Your task to perform on an android device: change the clock display to show seconds Image 0: 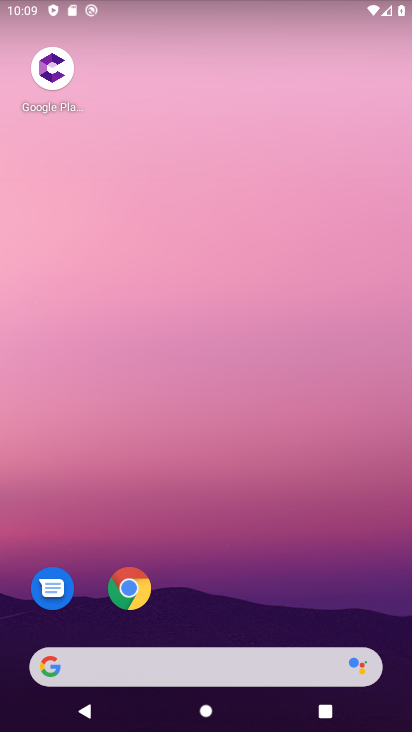
Step 0: drag from (236, 621) to (333, 54)
Your task to perform on an android device: change the clock display to show seconds Image 1: 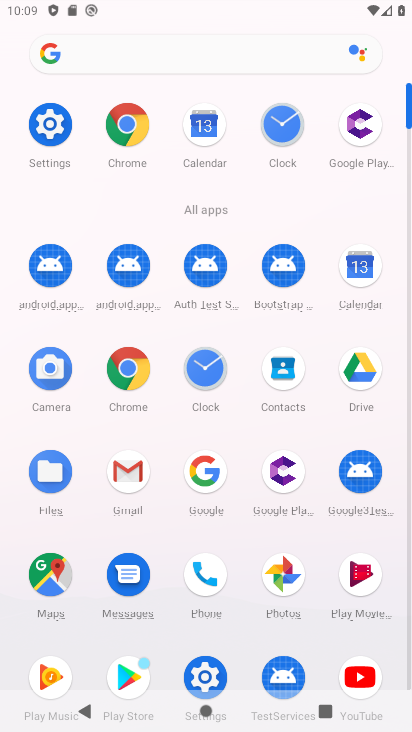
Step 1: click (187, 377)
Your task to perform on an android device: change the clock display to show seconds Image 2: 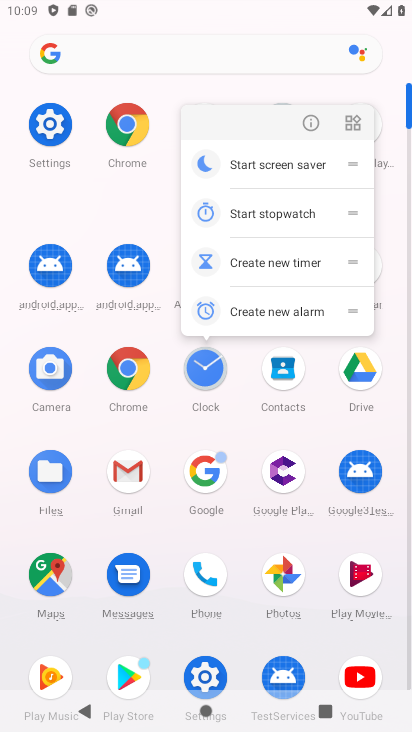
Step 2: click (215, 370)
Your task to perform on an android device: change the clock display to show seconds Image 3: 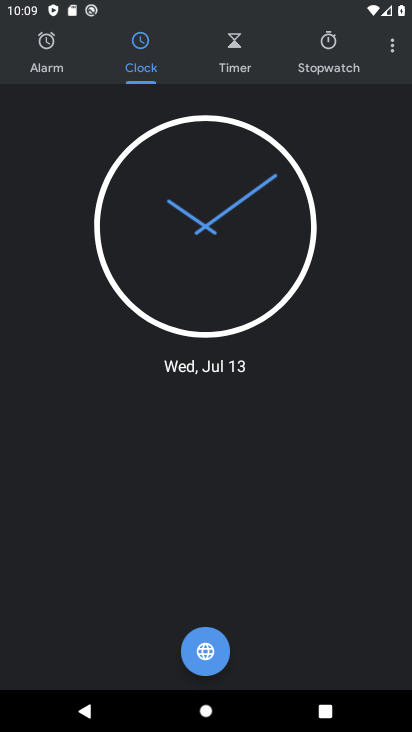
Step 3: click (393, 48)
Your task to perform on an android device: change the clock display to show seconds Image 4: 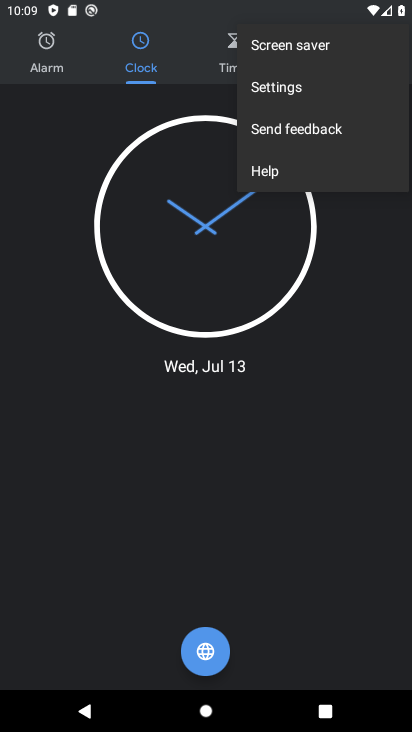
Step 4: click (370, 83)
Your task to perform on an android device: change the clock display to show seconds Image 5: 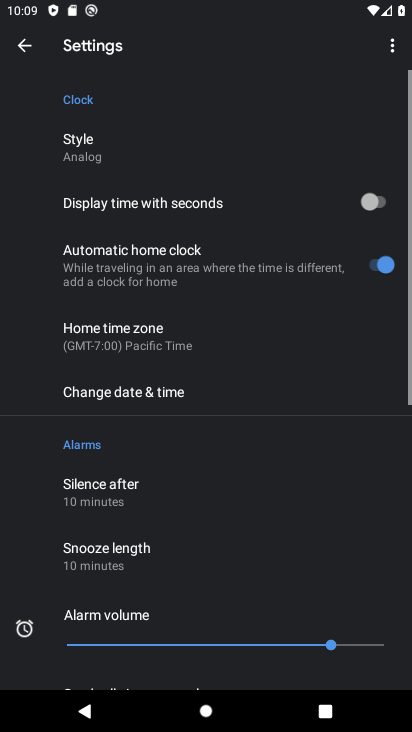
Step 5: click (387, 201)
Your task to perform on an android device: change the clock display to show seconds Image 6: 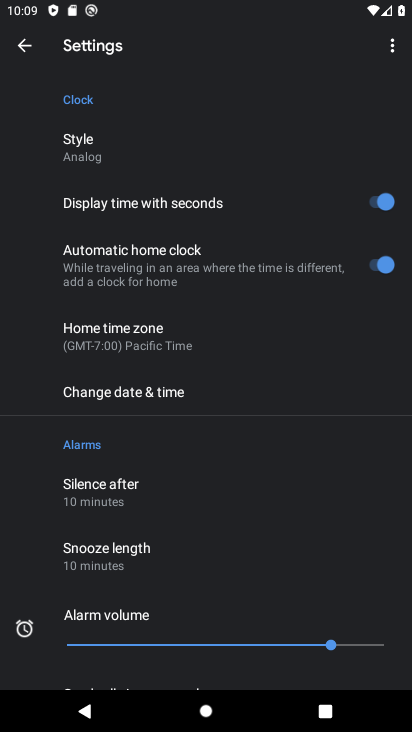
Step 6: task complete